Your task to perform on an android device: turn on airplane mode Image 0: 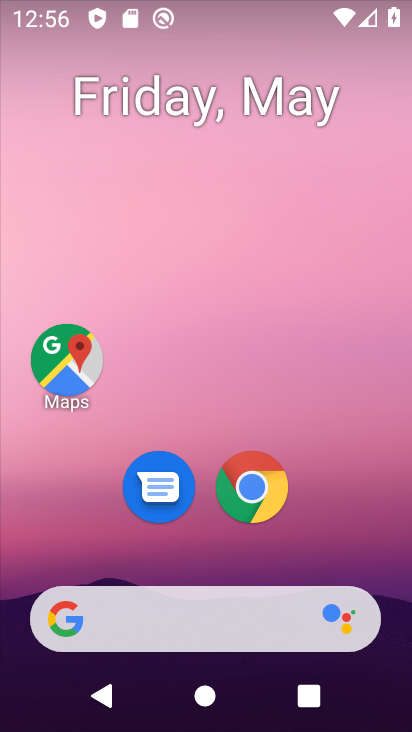
Step 0: drag from (249, 10) to (174, 657)
Your task to perform on an android device: turn on airplane mode Image 1: 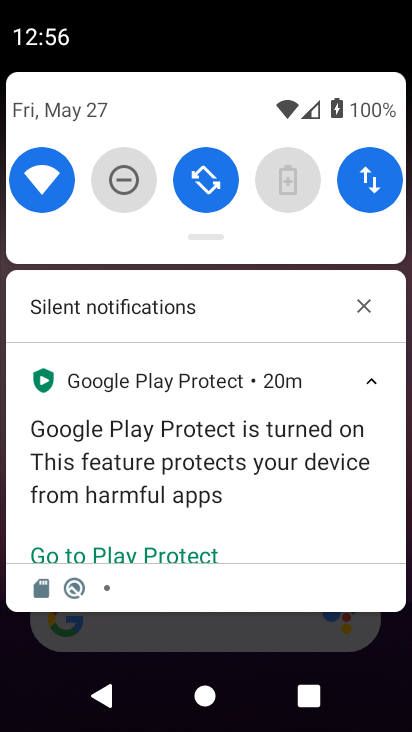
Step 1: drag from (216, 132) to (212, 714)
Your task to perform on an android device: turn on airplane mode Image 2: 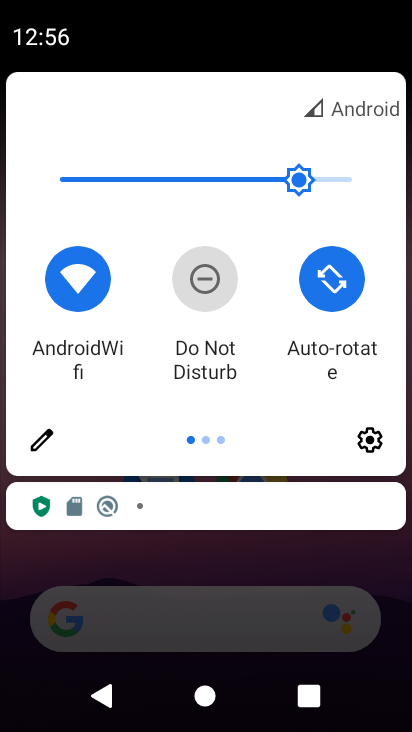
Step 2: drag from (384, 402) to (89, 408)
Your task to perform on an android device: turn on airplane mode Image 3: 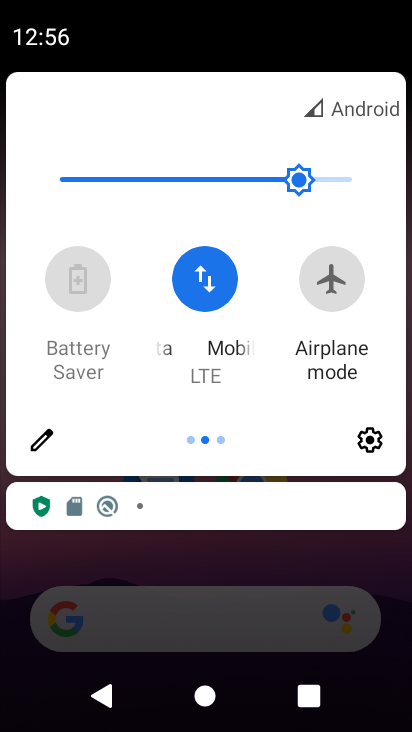
Step 3: click (340, 296)
Your task to perform on an android device: turn on airplane mode Image 4: 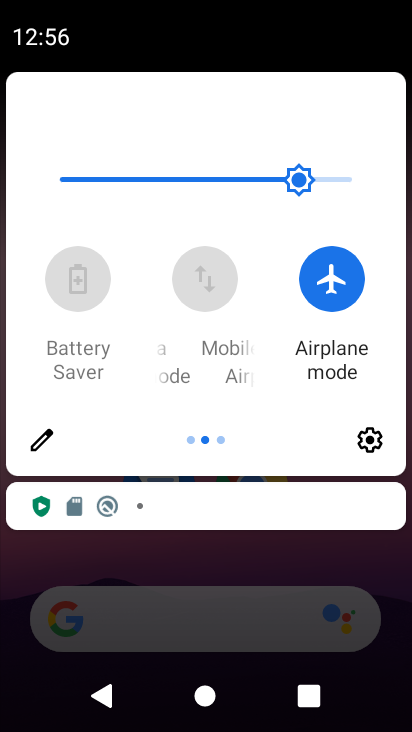
Step 4: task complete